Your task to perform on an android device: Open battery settings Image 0: 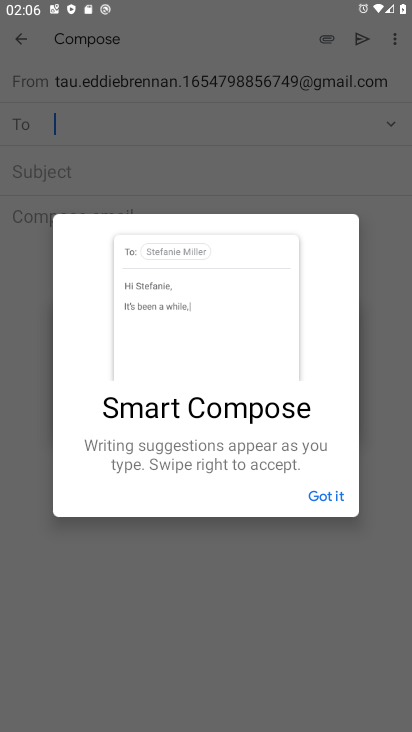
Step 0: press home button
Your task to perform on an android device: Open battery settings Image 1: 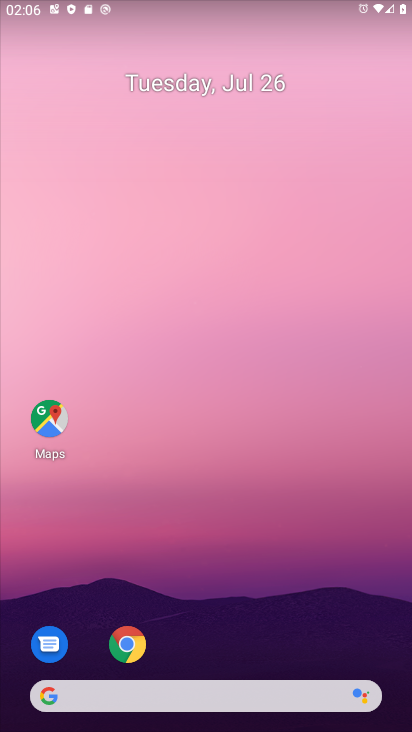
Step 1: drag from (201, 575) to (232, 159)
Your task to perform on an android device: Open battery settings Image 2: 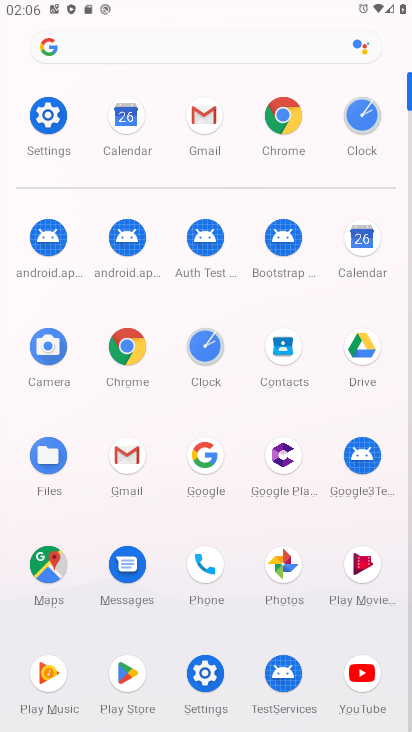
Step 2: click (50, 103)
Your task to perform on an android device: Open battery settings Image 3: 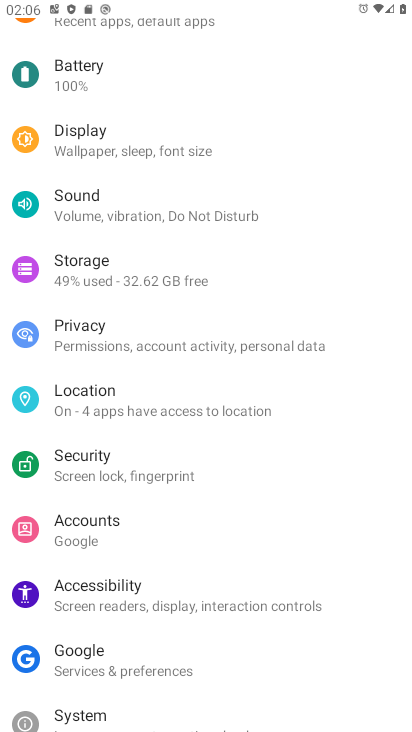
Step 3: click (90, 68)
Your task to perform on an android device: Open battery settings Image 4: 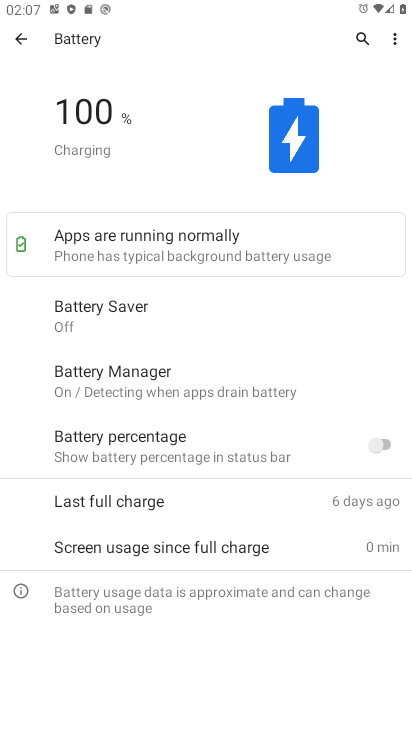
Step 4: task complete